Your task to perform on an android device: find photos in the google photos app Image 0: 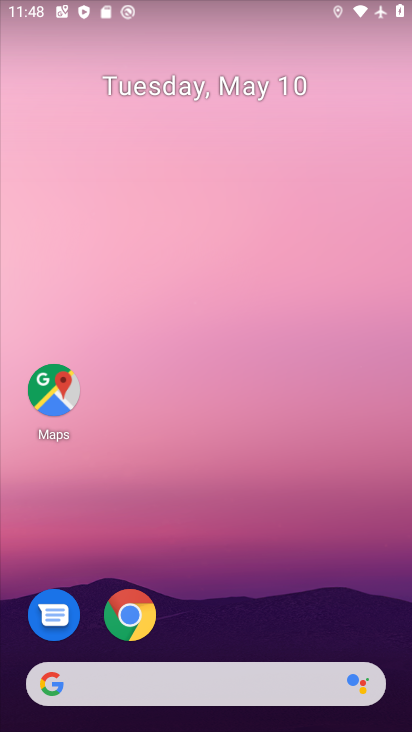
Step 0: drag from (225, 514) to (217, 55)
Your task to perform on an android device: find photos in the google photos app Image 1: 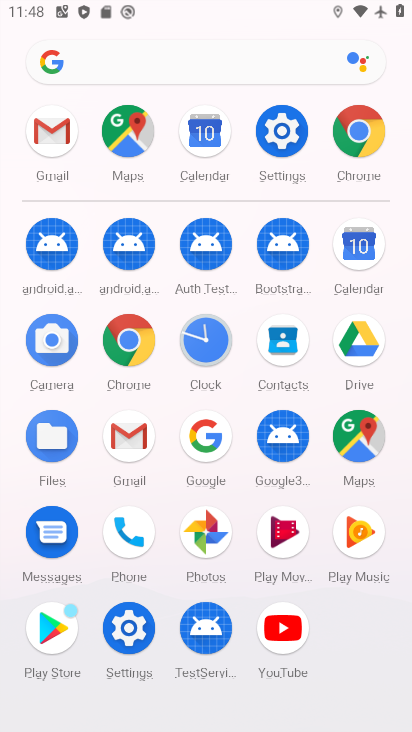
Step 1: drag from (10, 487) to (29, 164)
Your task to perform on an android device: find photos in the google photos app Image 2: 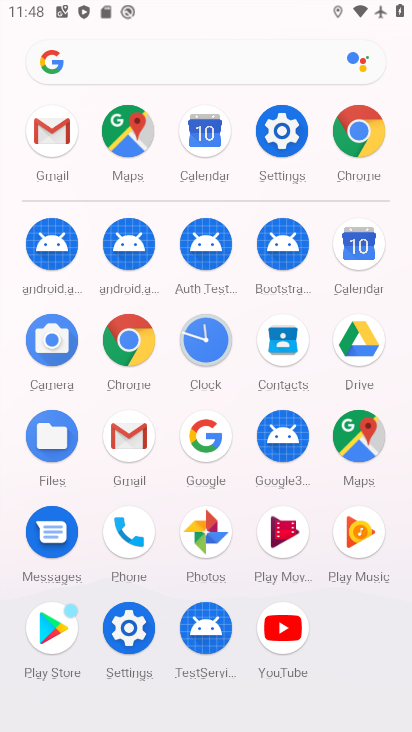
Step 2: click (212, 525)
Your task to perform on an android device: find photos in the google photos app Image 3: 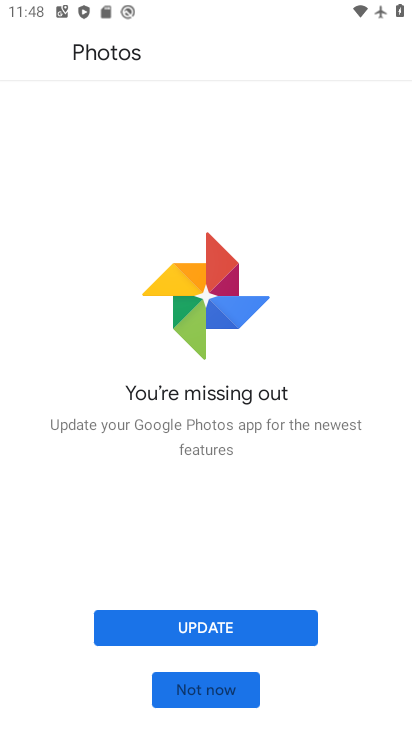
Step 3: click (211, 621)
Your task to perform on an android device: find photos in the google photos app Image 4: 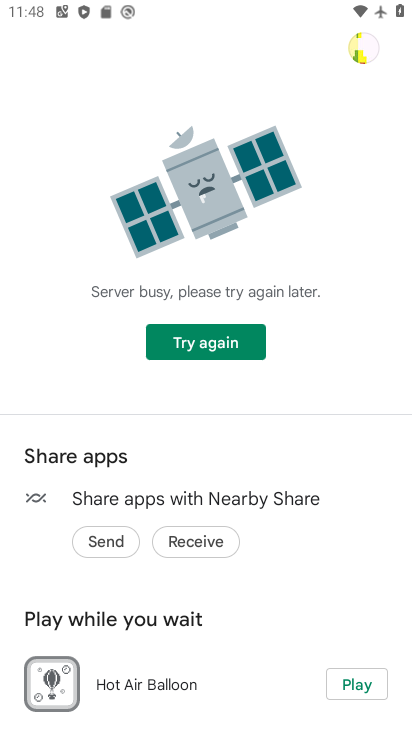
Step 4: click (215, 350)
Your task to perform on an android device: find photos in the google photos app Image 5: 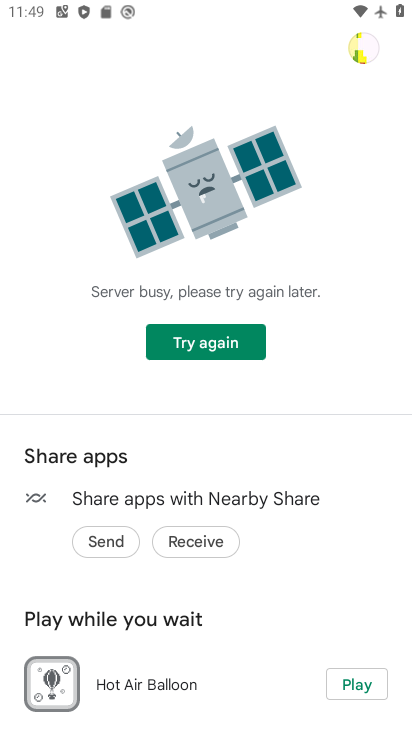
Step 5: task complete